Your task to perform on an android device: toggle improve location accuracy Image 0: 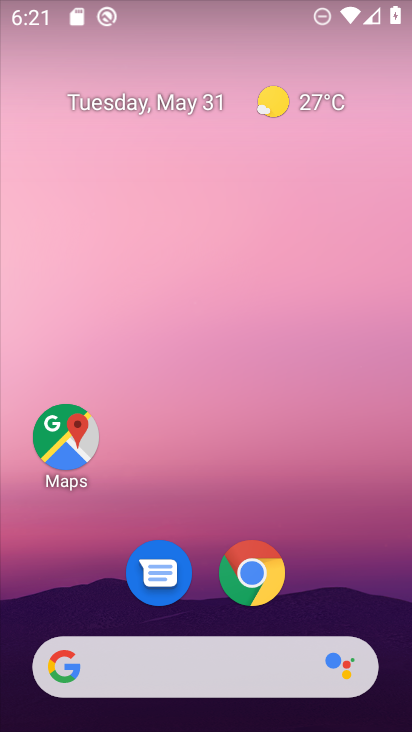
Step 0: drag from (394, 622) to (353, 23)
Your task to perform on an android device: toggle improve location accuracy Image 1: 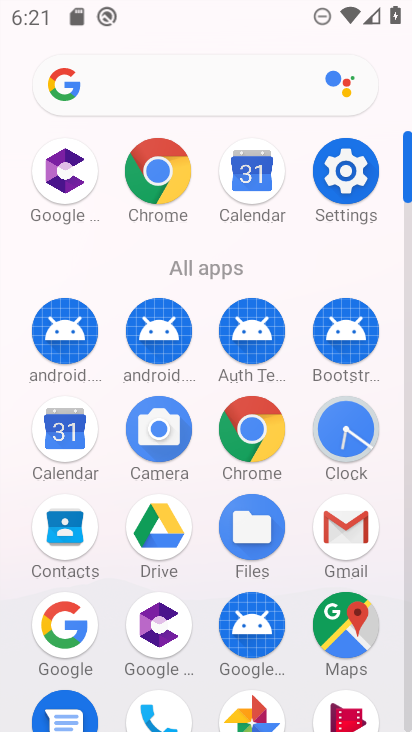
Step 1: click (335, 166)
Your task to perform on an android device: toggle improve location accuracy Image 2: 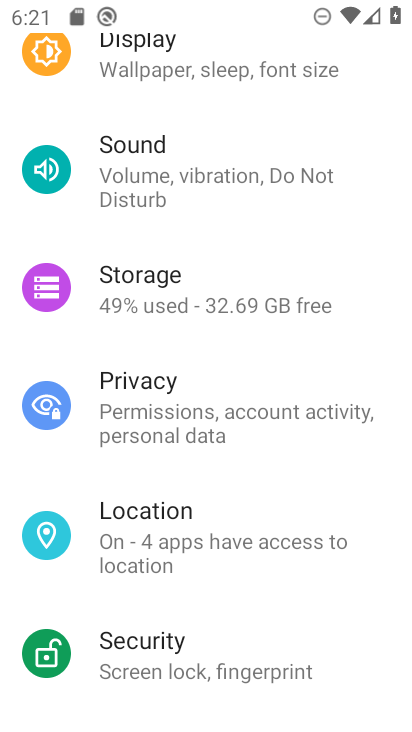
Step 2: click (189, 518)
Your task to perform on an android device: toggle improve location accuracy Image 3: 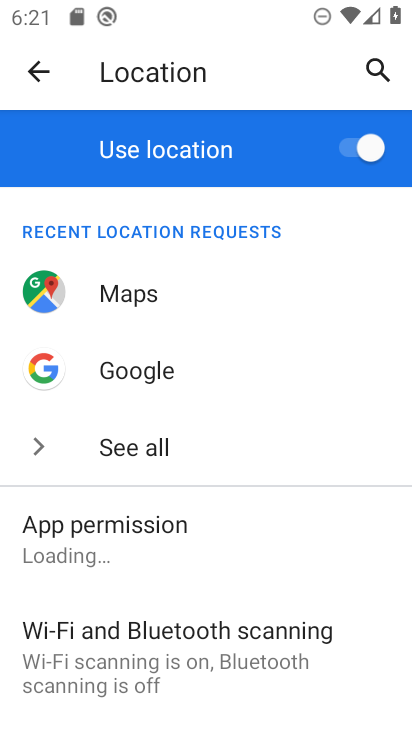
Step 3: drag from (161, 625) to (209, 102)
Your task to perform on an android device: toggle improve location accuracy Image 4: 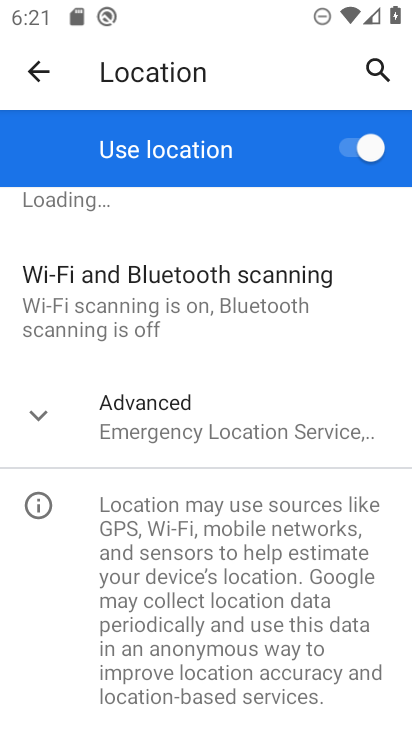
Step 4: click (215, 432)
Your task to perform on an android device: toggle improve location accuracy Image 5: 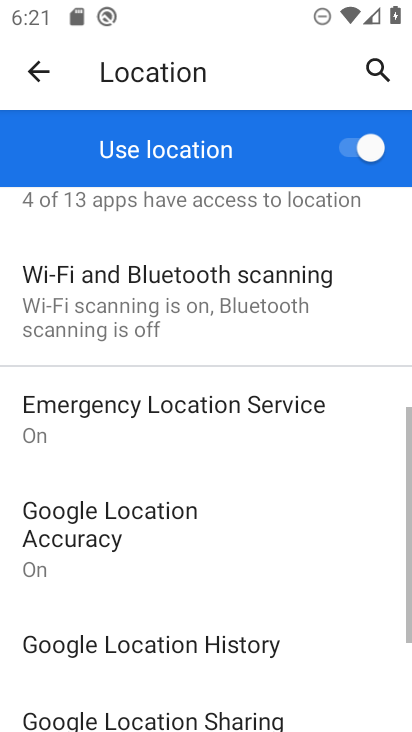
Step 5: click (182, 527)
Your task to perform on an android device: toggle improve location accuracy Image 6: 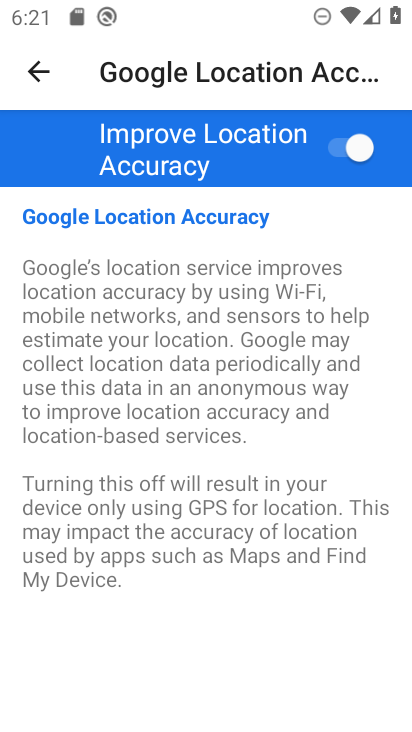
Step 6: click (340, 167)
Your task to perform on an android device: toggle improve location accuracy Image 7: 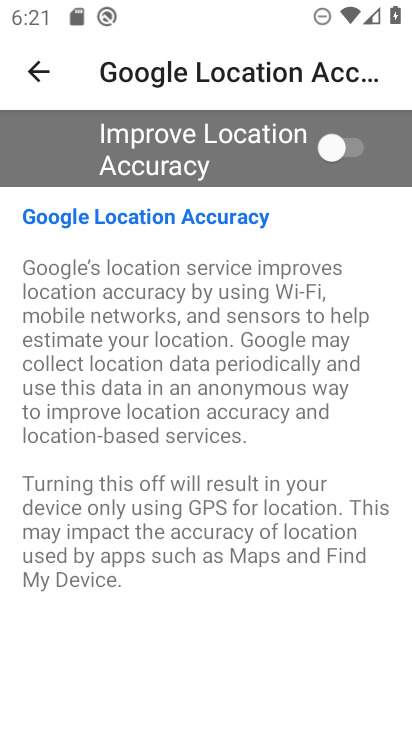
Step 7: task complete